Your task to perform on an android device: Clear the cart on ebay. Search for "razer huntsman" on ebay, select the first entry, and add it to the cart. Image 0: 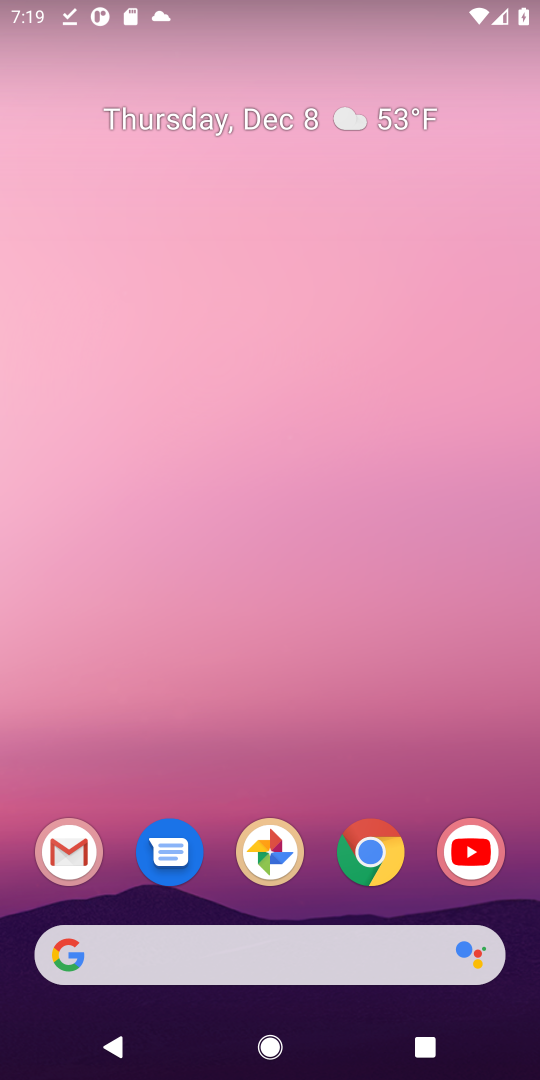
Step 0: click (331, 936)
Your task to perform on an android device: Clear the cart on ebay. Search for "razer huntsman" on ebay, select the first entry, and add it to the cart. Image 1: 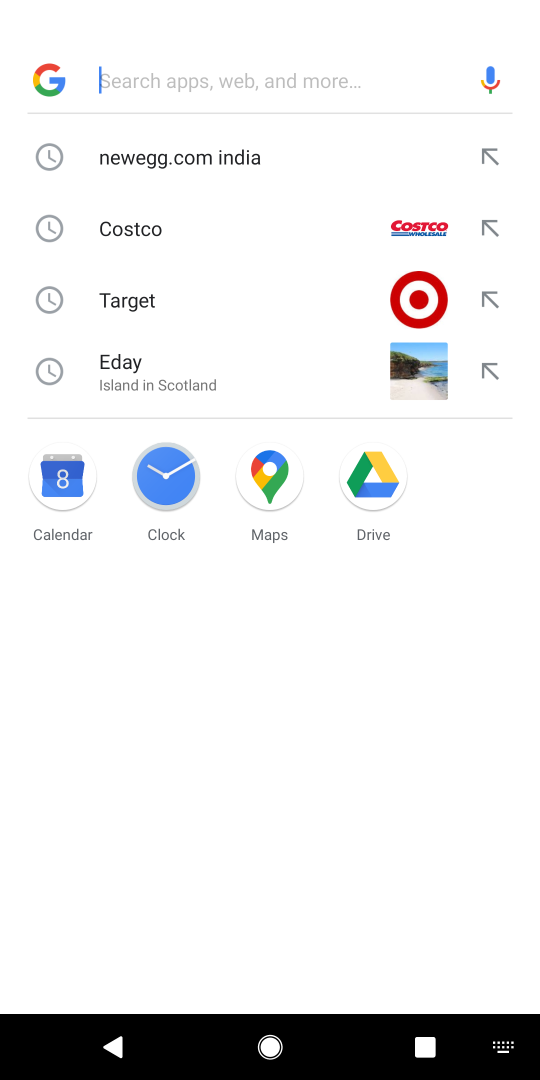
Step 1: type "raer "
Your task to perform on an android device: Clear the cart on ebay. Search for "razer huntsman" on ebay, select the first entry, and add it to the cart. Image 2: 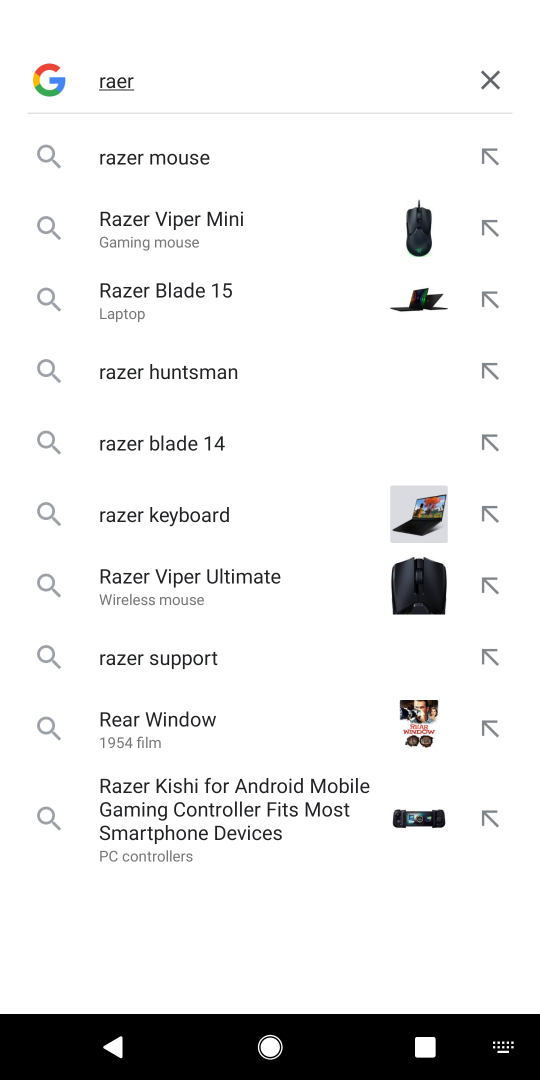
Step 2: click (241, 158)
Your task to perform on an android device: Clear the cart on ebay. Search for "razer huntsman" on ebay, select the first entry, and add it to the cart. Image 3: 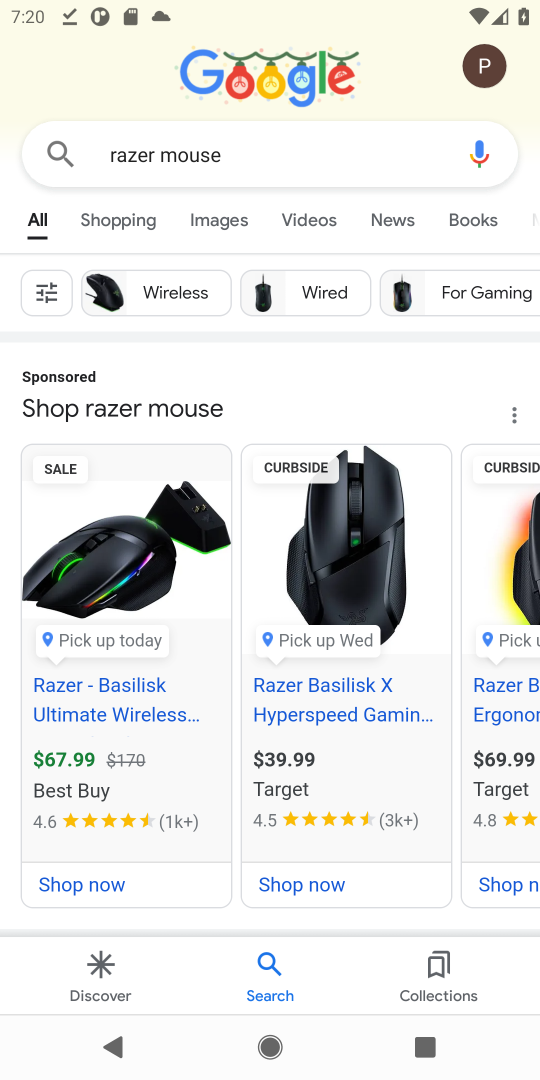
Step 3: task complete